Your task to perform on an android device: clear history in the chrome app Image 0: 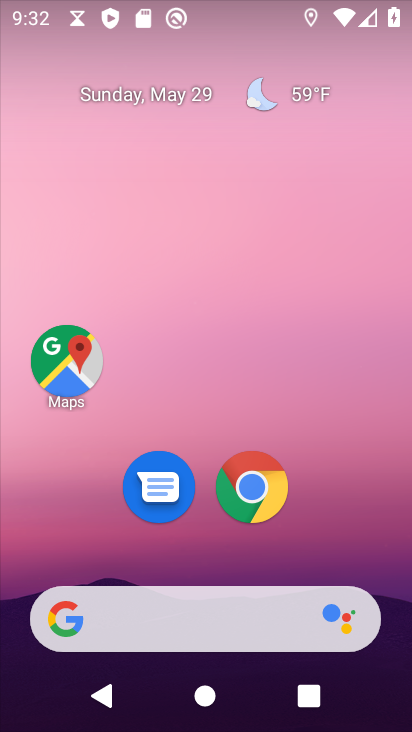
Step 0: click (255, 488)
Your task to perform on an android device: clear history in the chrome app Image 1: 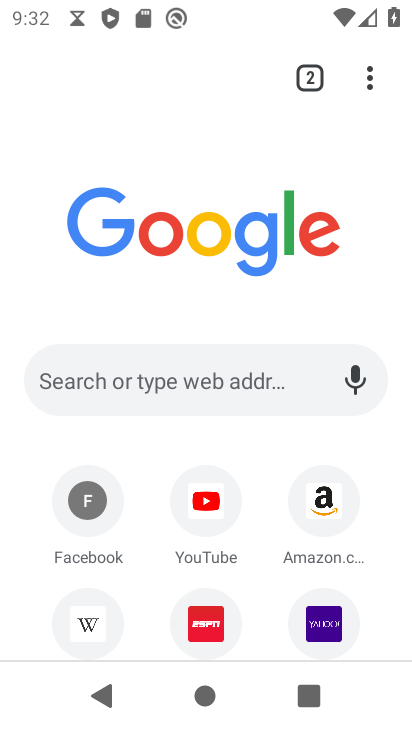
Step 1: click (369, 74)
Your task to perform on an android device: clear history in the chrome app Image 2: 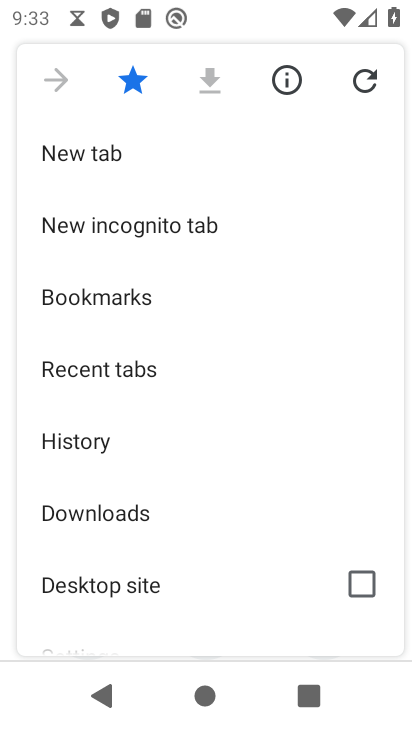
Step 2: click (89, 443)
Your task to perform on an android device: clear history in the chrome app Image 3: 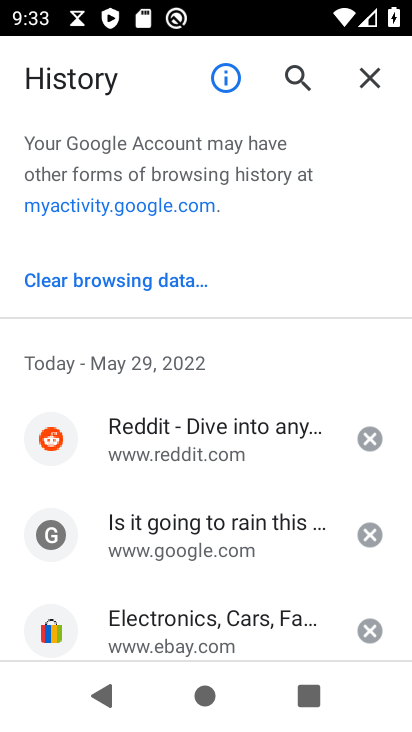
Step 3: click (129, 285)
Your task to perform on an android device: clear history in the chrome app Image 4: 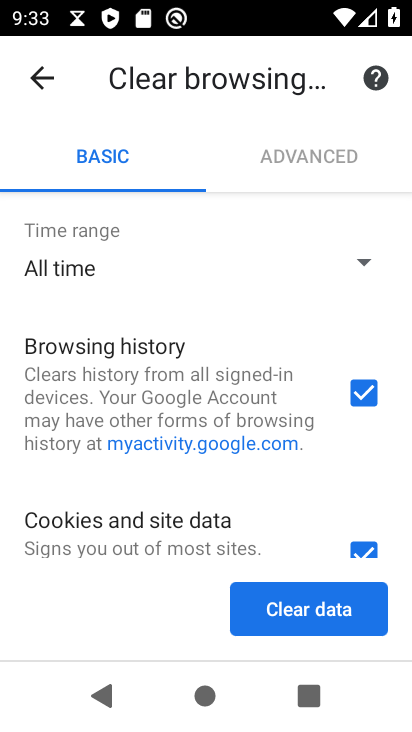
Step 4: click (344, 619)
Your task to perform on an android device: clear history in the chrome app Image 5: 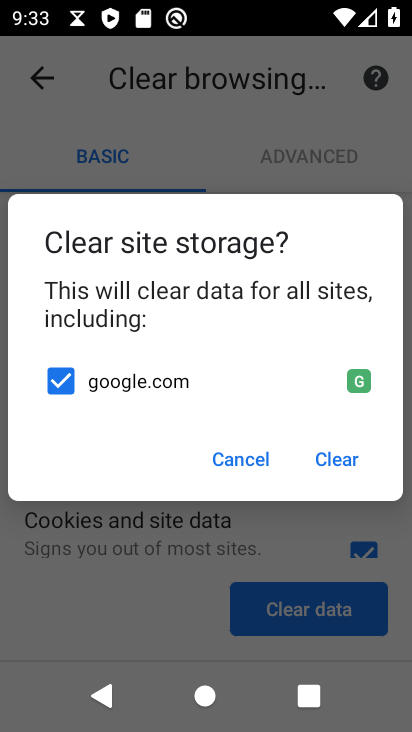
Step 5: click (327, 461)
Your task to perform on an android device: clear history in the chrome app Image 6: 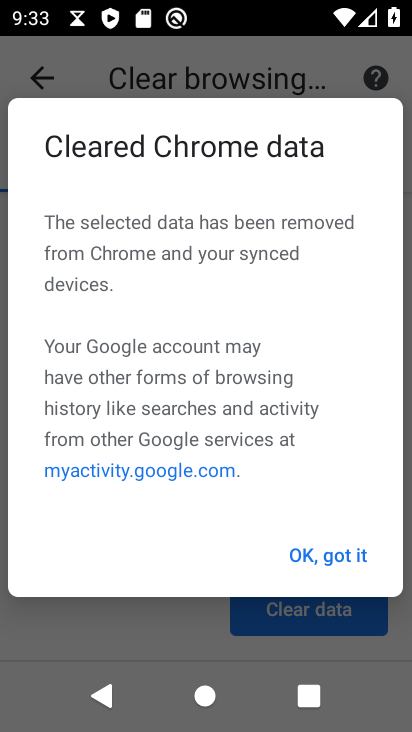
Step 6: click (354, 555)
Your task to perform on an android device: clear history in the chrome app Image 7: 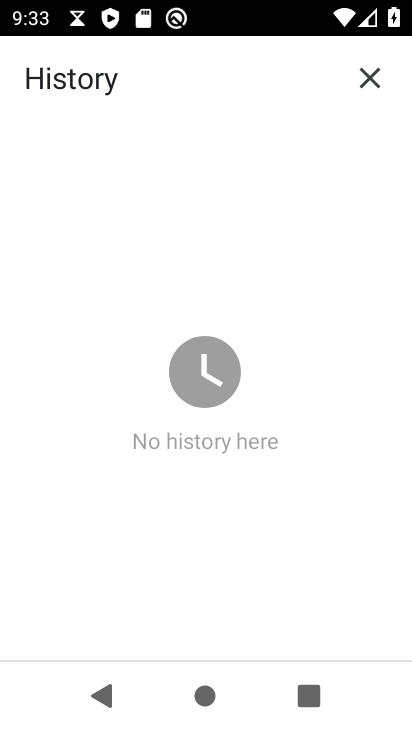
Step 7: task complete